Your task to perform on an android device: turn off location Image 0: 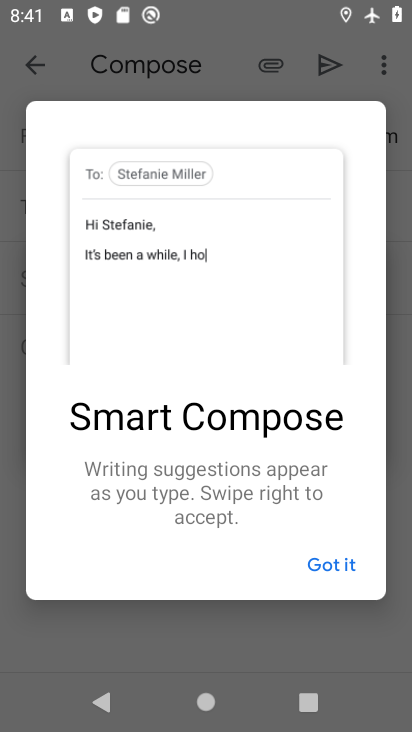
Step 0: press home button
Your task to perform on an android device: turn off location Image 1: 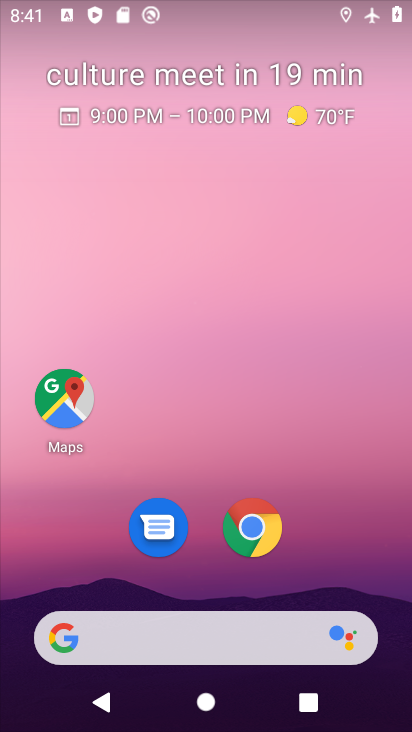
Step 1: drag from (237, 588) to (248, 341)
Your task to perform on an android device: turn off location Image 2: 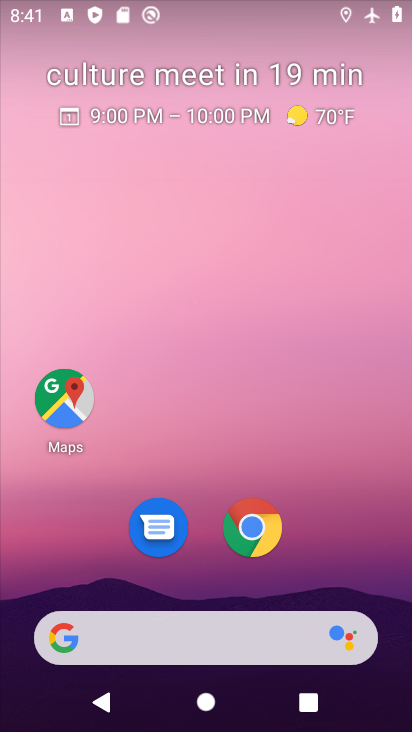
Step 2: drag from (225, 633) to (328, 150)
Your task to perform on an android device: turn off location Image 3: 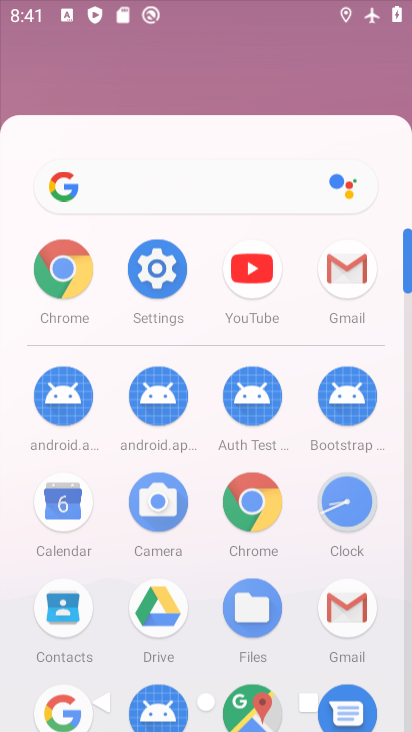
Step 3: click (349, 37)
Your task to perform on an android device: turn off location Image 4: 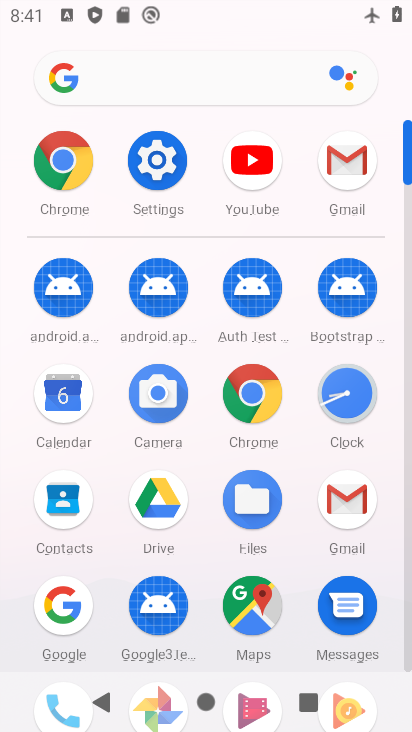
Step 4: click (170, 186)
Your task to perform on an android device: turn off location Image 5: 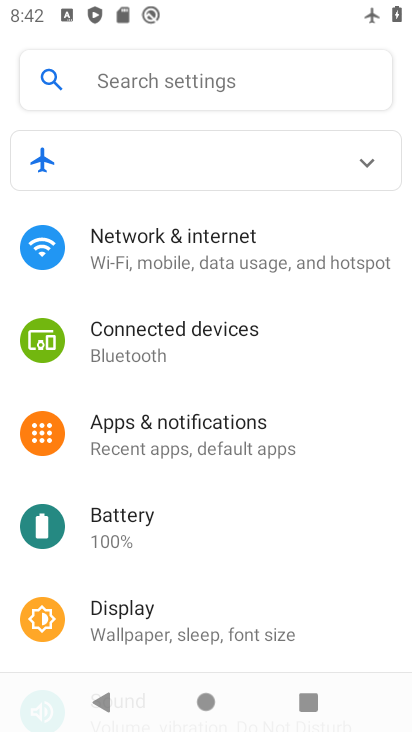
Step 5: drag from (177, 499) to (203, 299)
Your task to perform on an android device: turn off location Image 6: 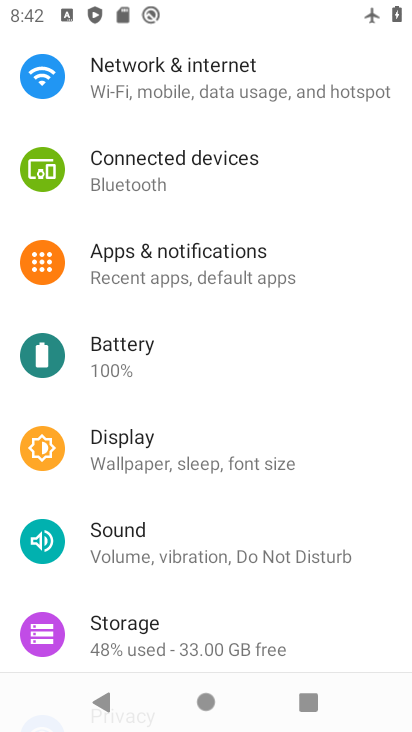
Step 6: drag from (228, 146) to (237, 96)
Your task to perform on an android device: turn off location Image 7: 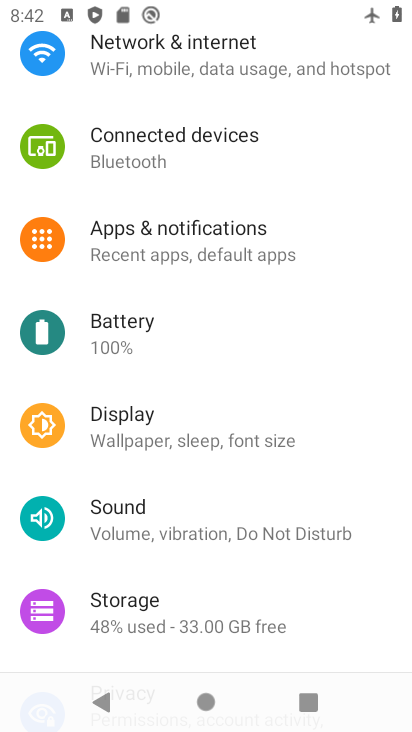
Step 7: drag from (196, 557) to (259, 144)
Your task to perform on an android device: turn off location Image 8: 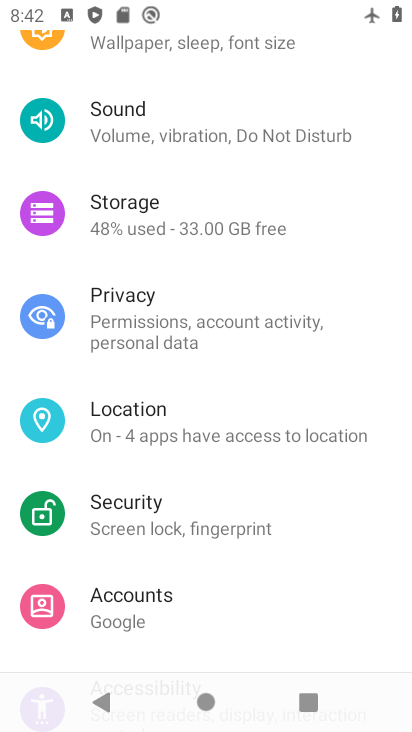
Step 8: click (191, 427)
Your task to perform on an android device: turn off location Image 9: 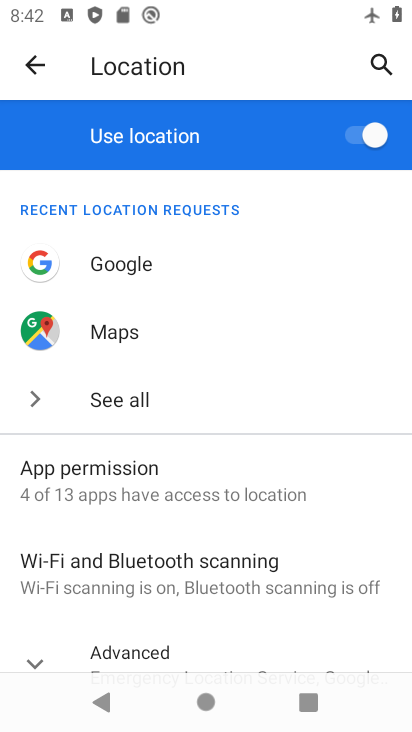
Step 9: drag from (177, 564) to (177, 481)
Your task to perform on an android device: turn off location Image 10: 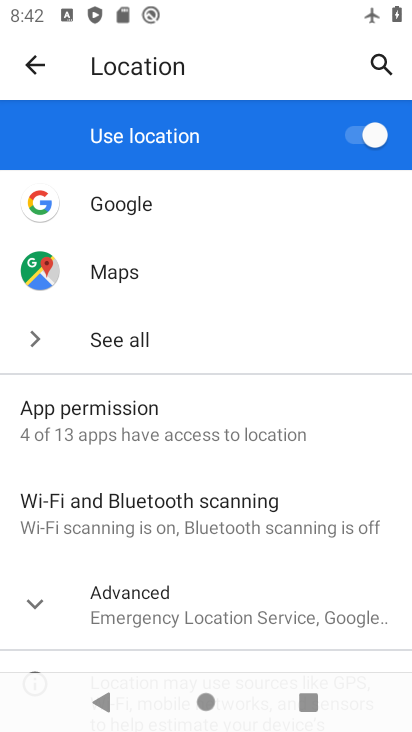
Step 10: click (353, 145)
Your task to perform on an android device: turn off location Image 11: 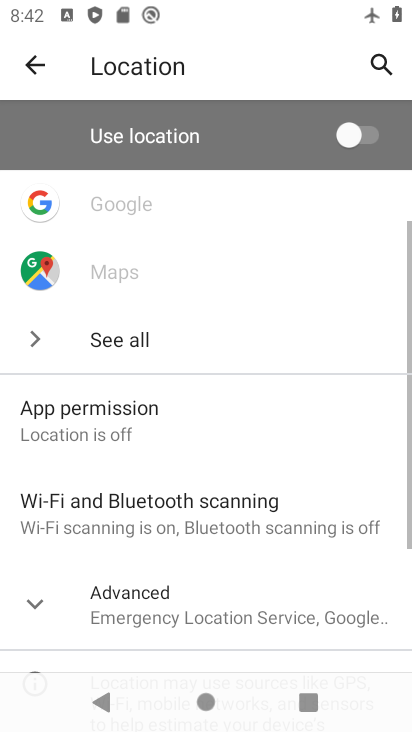
Step 11: task complete